Your task to perform on an android device: open chrome and create a bookmark for the current page Image 0: 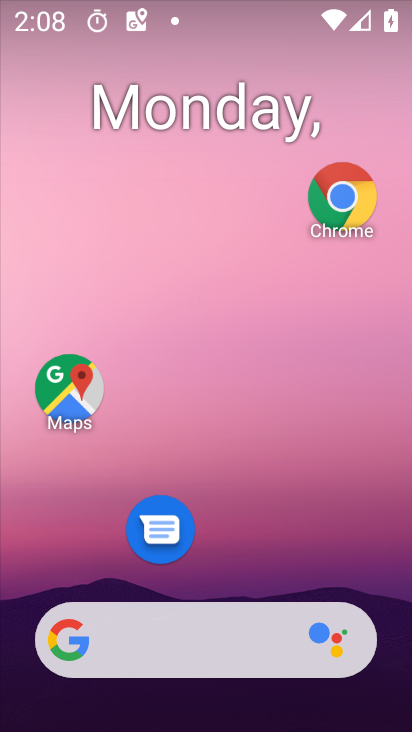
Step 0: click (340, 215)
Your task to perform on an android device: open chrome and create a bookmark for the current page Image 1: 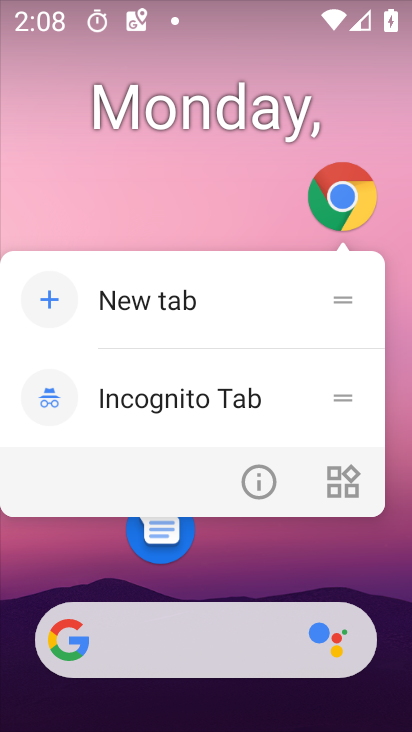
Step 1: click (344, 200)
Your task to perform on an android device: open chrome and create a bookmark for the current page Image 2: 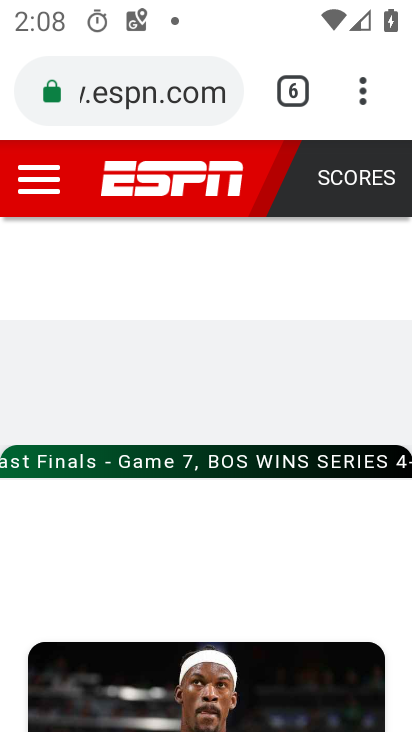
Step 2: click (379, 94)
Your task to perform on an android device: open chrome and create a bookmark for the current page Image 3: 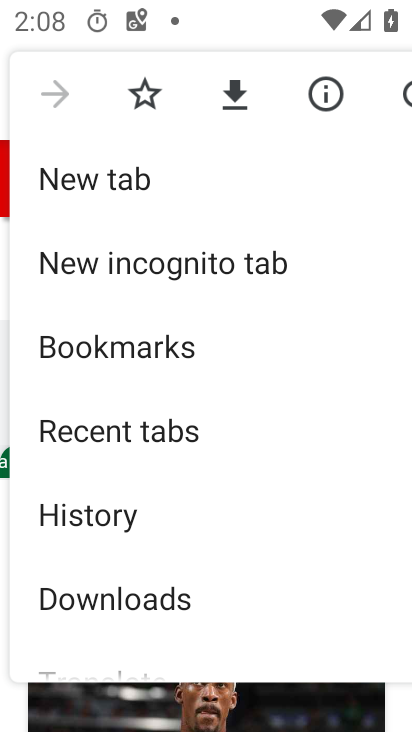
Step 3: drag from (158, 597) to (129, 261)
Your task to perform on an android device: open chrome and create a bookmark for the current page Image 4: 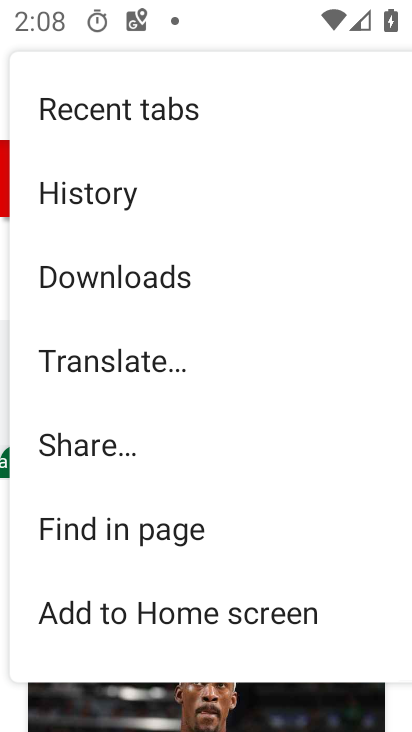
Step 4: drag from (181, 98) to (183, 554)
Your task to perform on an android device: open chrome and create a bookmark for the current page Image 5: 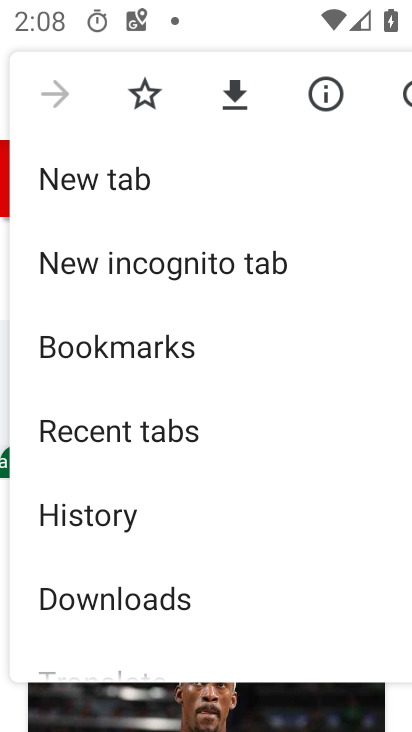
Step 5: click (143, 98)
Your task to perform on an android device: open chrome and create a bookmark for the current page Image 6: 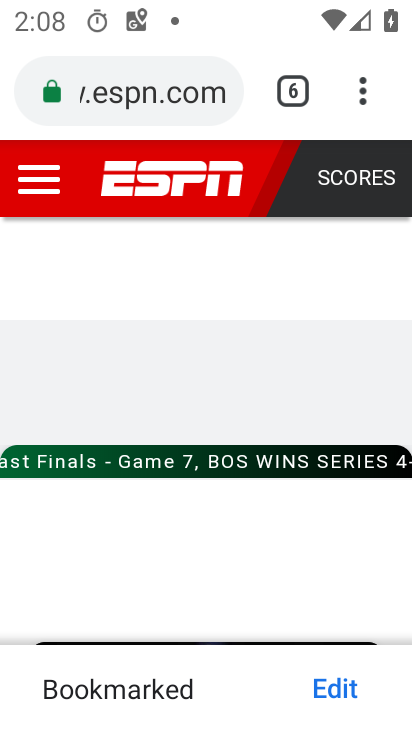
Step 6: task complete